Your task to perform on an android device: Open Reddit.com Image 0: 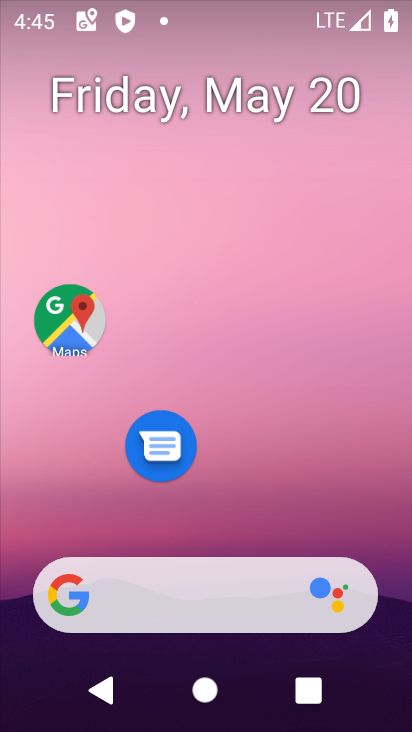
Step 0: drag from (187, 533) to (235, 11)
Your task to perform on an android device: Open Reddit.com Image 1: 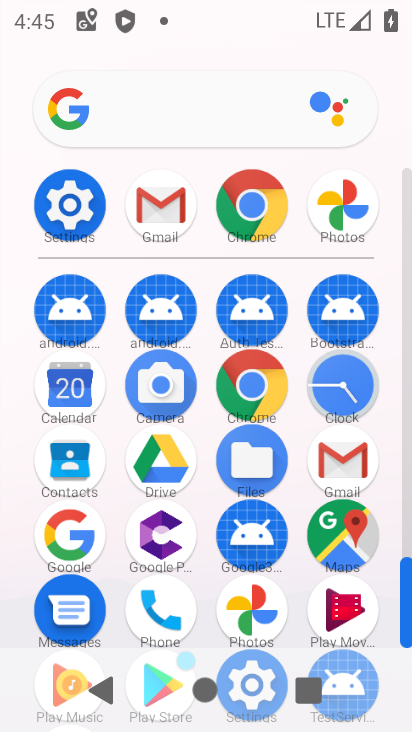
Step 1: click (246, 392)
Your task to perform on an android device: Open Reddit.com Image 2: 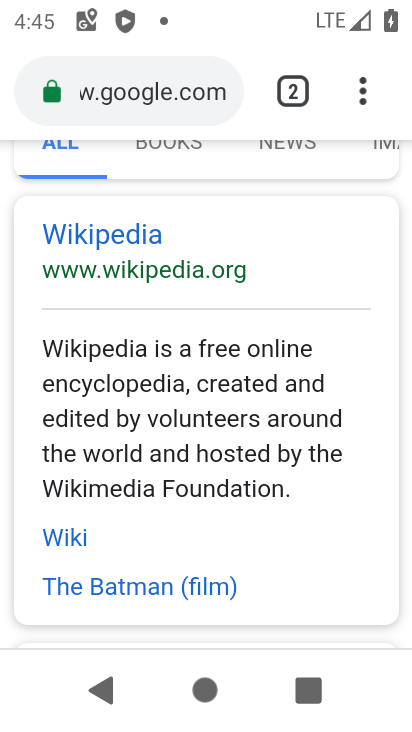
Step 2: click (150, 96)
Your task to perform on an android device: Open Reddit.com Image 3: 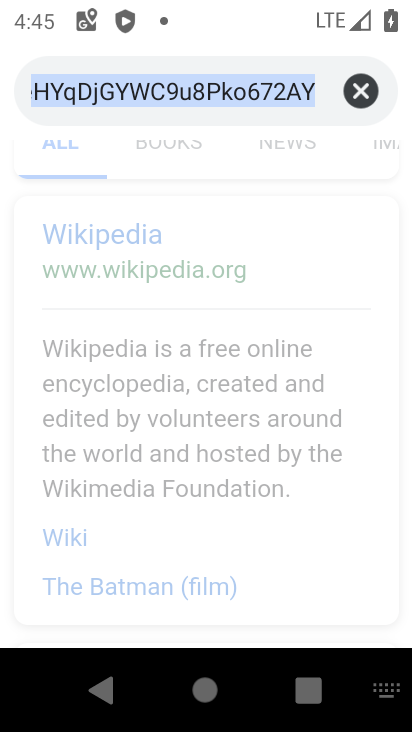
Step 3: type "Reddit.com"
Your task to perform on an android device: Open Reddit.com Image 4: 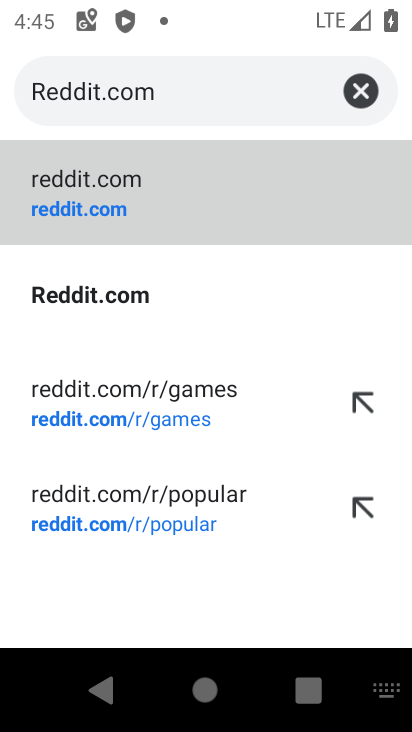
Step 4: click (84, 226)
Your task to perform on an android device: Open Reddit.com Image 5: 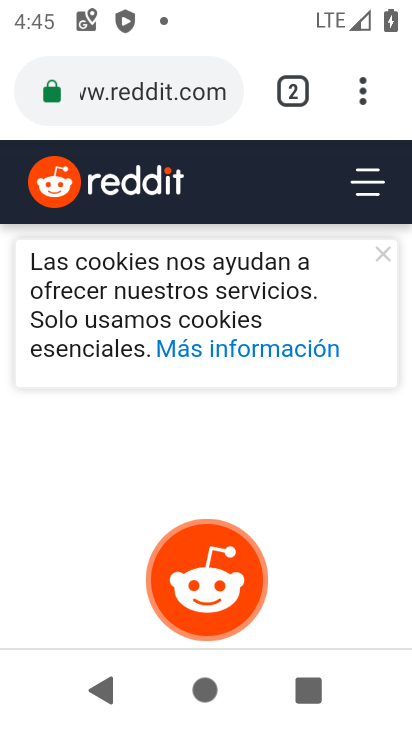
Step 5: task complete